Your task to perform on an android device: read, delete, or share a saved page in the chrome app Image 0: 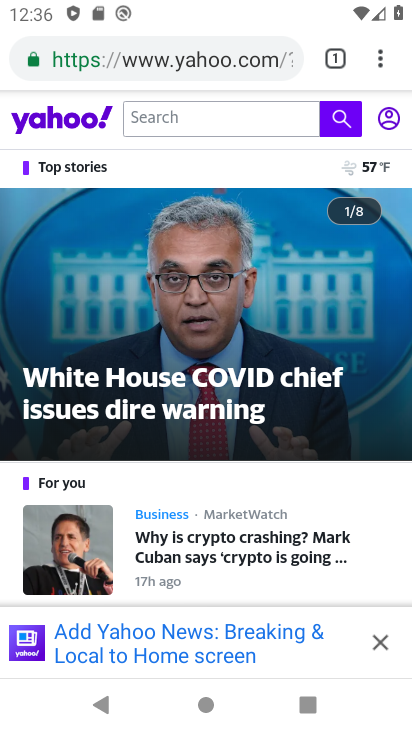
Step 0: click (390, 64)
Your task to perform on an android device: read, delete, or share a saved page in the chrome app Image 1: 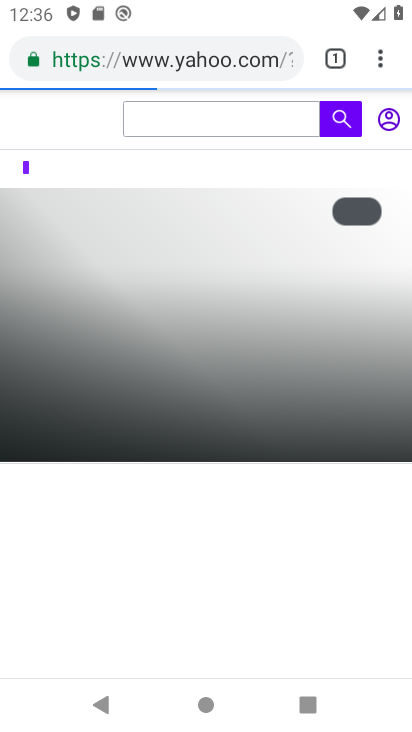
Step 1: click (373, 52)
Your task to perform on an android device: read, delete, or share a saved page in the chrome app Image 2: 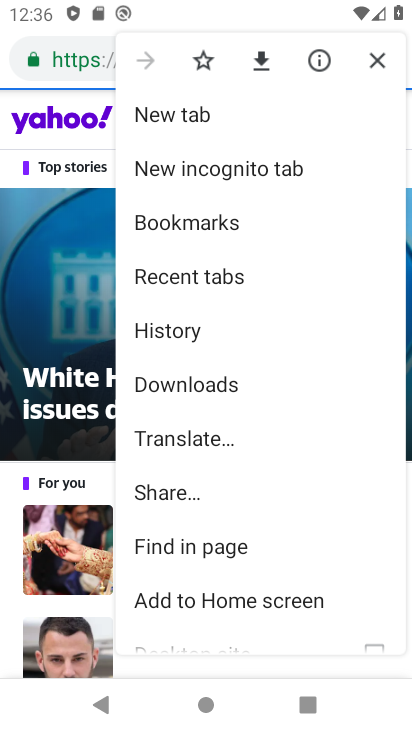
Step 2: click (217, 379)
Your task to perform on an android device: read, delete, or share a saved page in the chrome app Image 3: 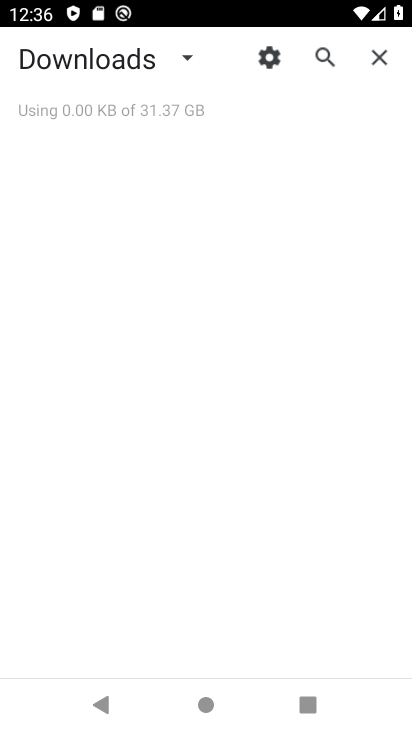
Step 3: click (177, 57)
Your task to perform on an android device: read, delete, or share a saved page in the chrome app Image 4: 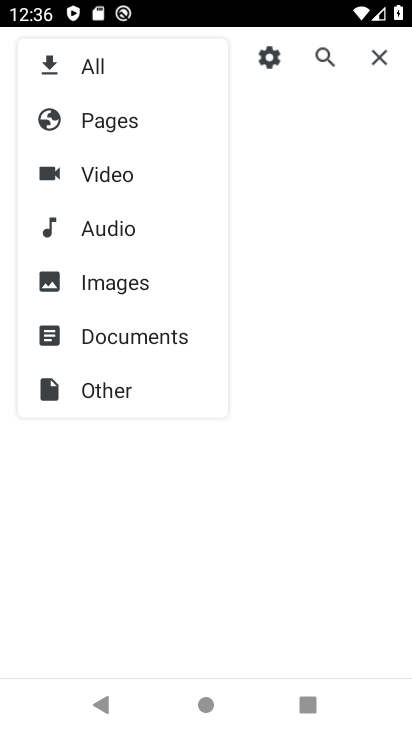
Step 4: click (137, 132)
Your task to perform on an android device: read, delete, or share a saved page in the chrome app Image 5: 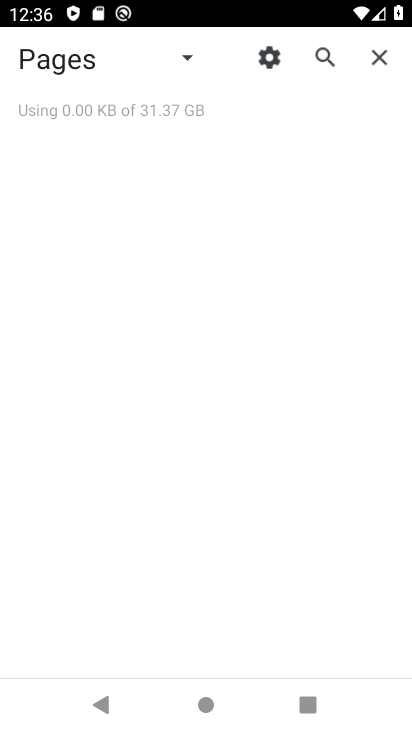
Step 5: task complete